Your task to perform on an android device: Go to Yahoo.com Image 0: 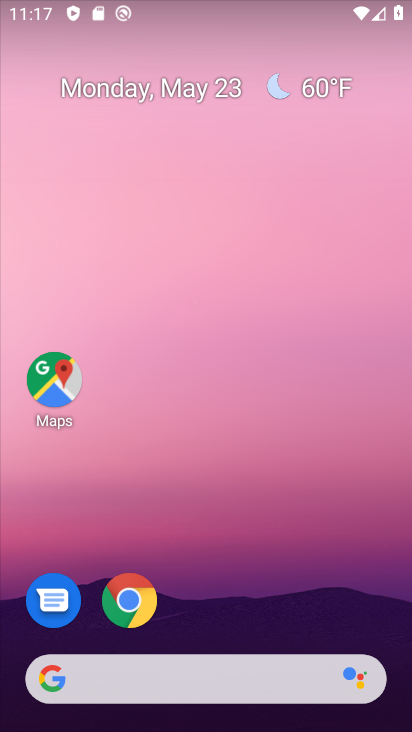
Step 0: drag from (323, 716) to (261, 264)
Your task to perform on an android device: Go to Yahoo.com Image 1: 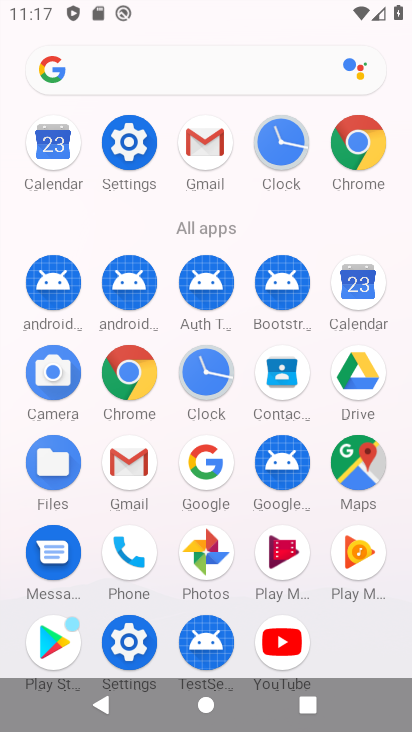
Step 1: click (359, 129)
Your task to perform on an android device: Go to Yahoo.com Image 2: 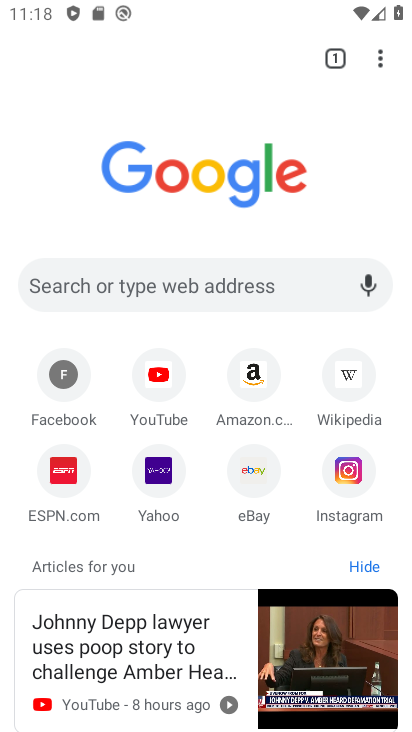
Step 2: click (165, 484)
Your task to perform on an android device: Go to Yahoo.com Image 3: 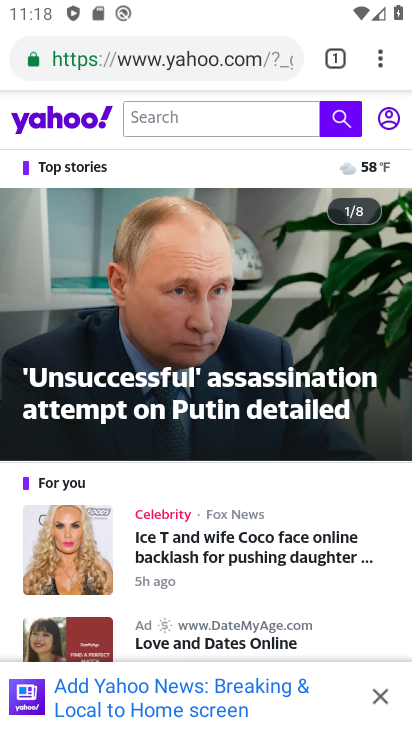
Step 3: task complete